Your task to perform on an android device: Clear the cart on walmart.com. Image 0: 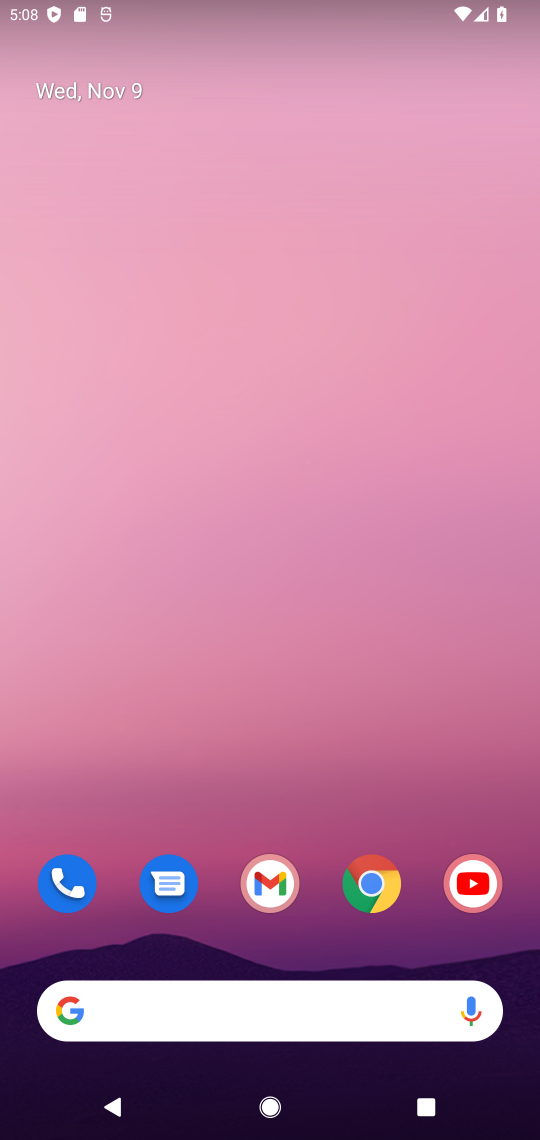
Step 0: click (370, 894)
Your task to perform on an android device: Clear the cart on walmart.com. Image 1: 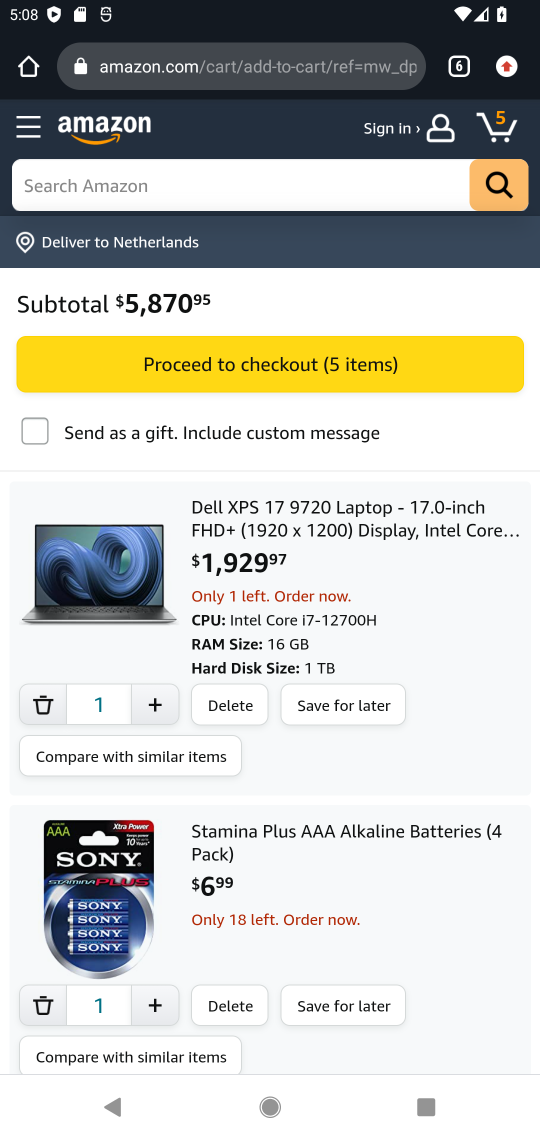
Step 1: click (463, 66)
Your task to perform on an android device: Clear the cart on walmart.com. Image 2: 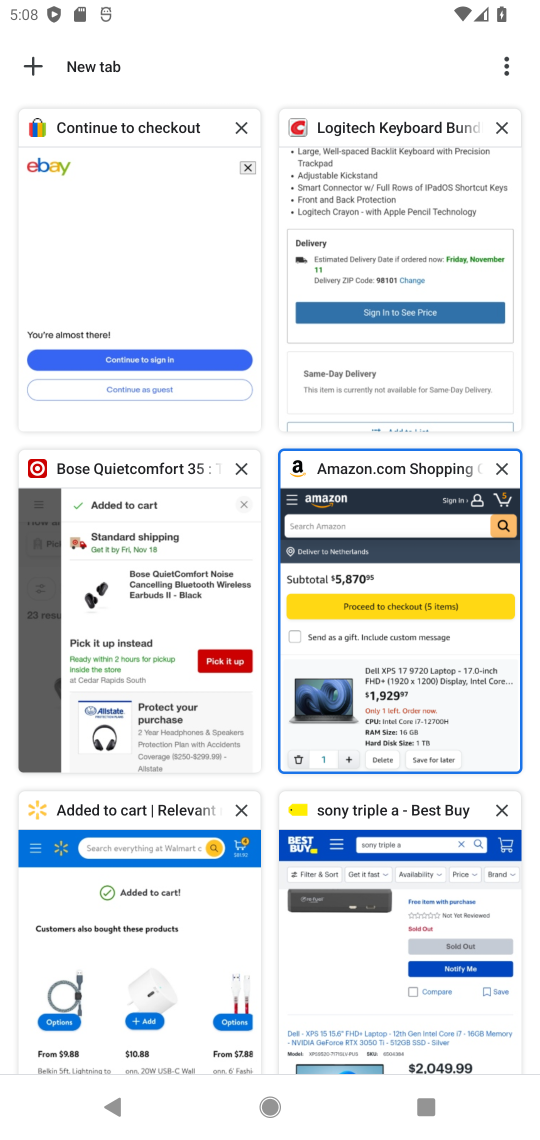
Step 2: click (146, 921)
Your task to perform on an android device: Clear the cart on walmart.com. Image 3: 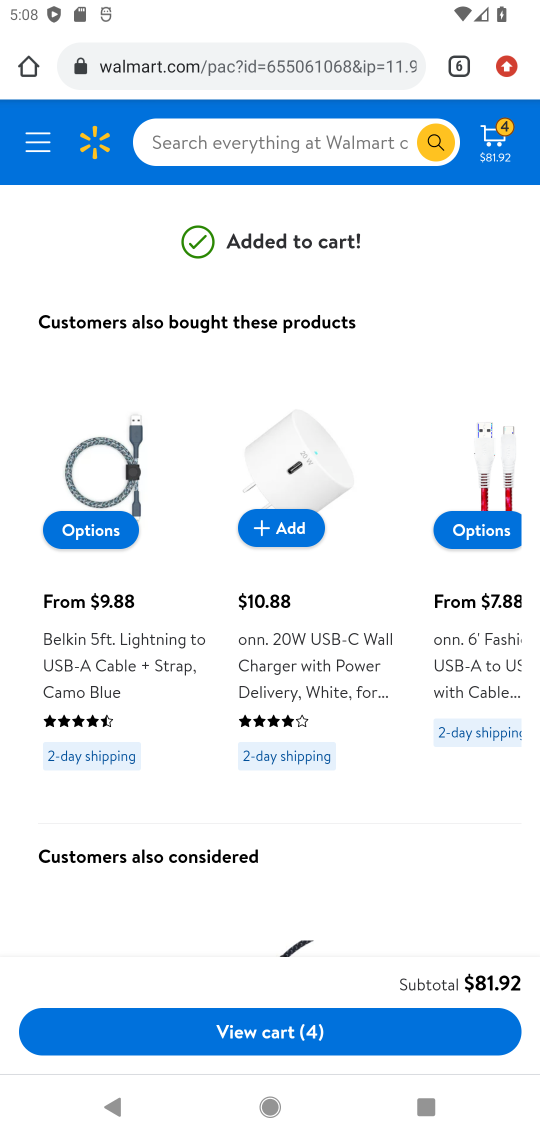
Step 3: click (498, 153)
Your task to perform on an android device: Clear the cart on walmart.com. Image 4: 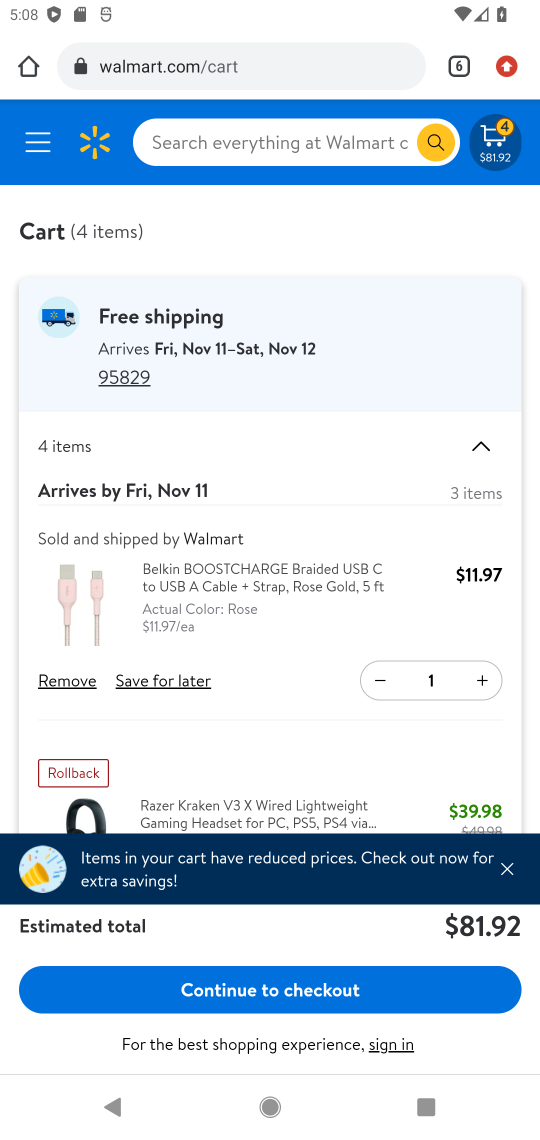
Step 4: click (70, 677)
Your task to perform on an android device: Clear the cart on walmart.com. Image 5: 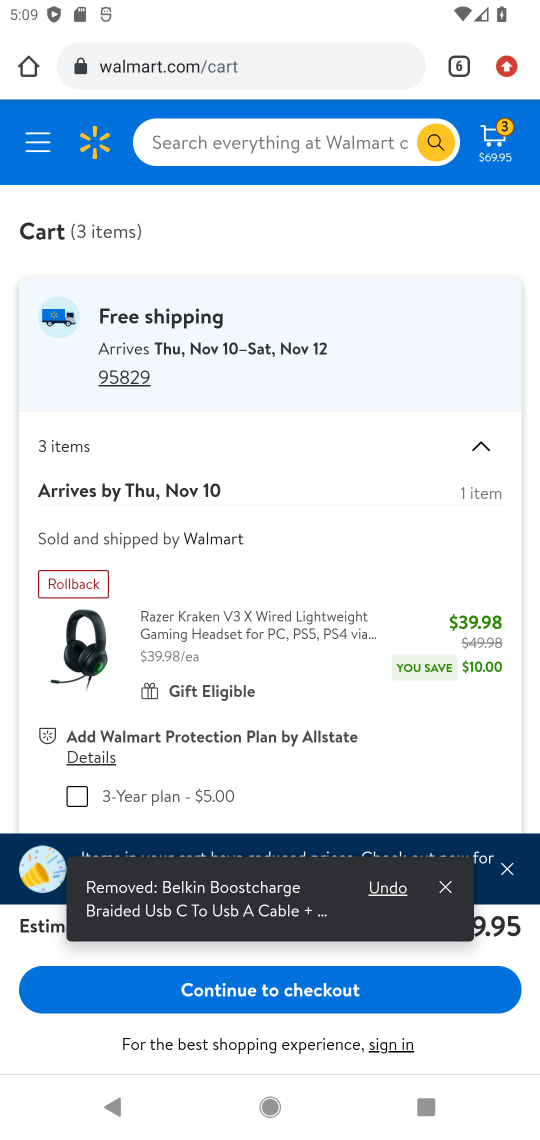
Step 5: click (504, 874)
Your task to perform on an android device: Clear the cart on walmart.com. Image 6: 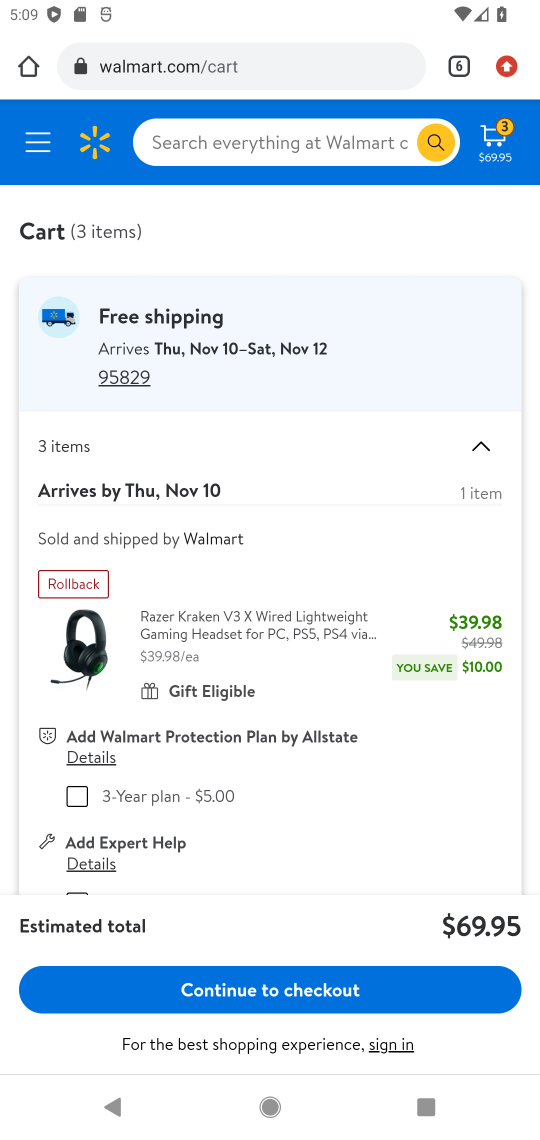
Step 6: drag from (169, 866) to (307, 347)
Your task to perform on an android device: Clear the cart on walmart.com. Image 7: 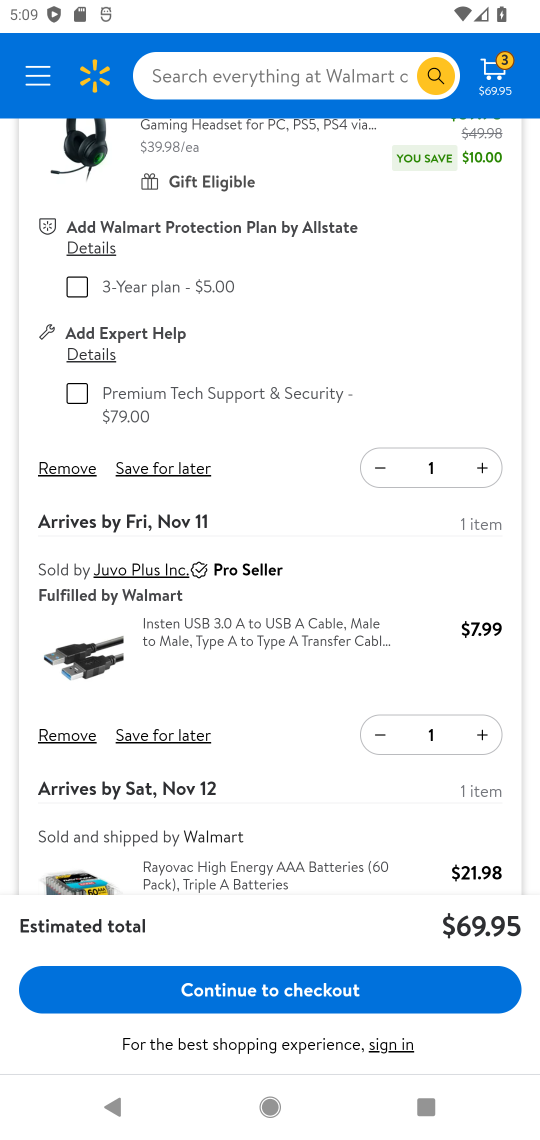
Step 7: click (71, 737)
Your task to perform on an android device: Clear the cart on walmart.com. Image 8: 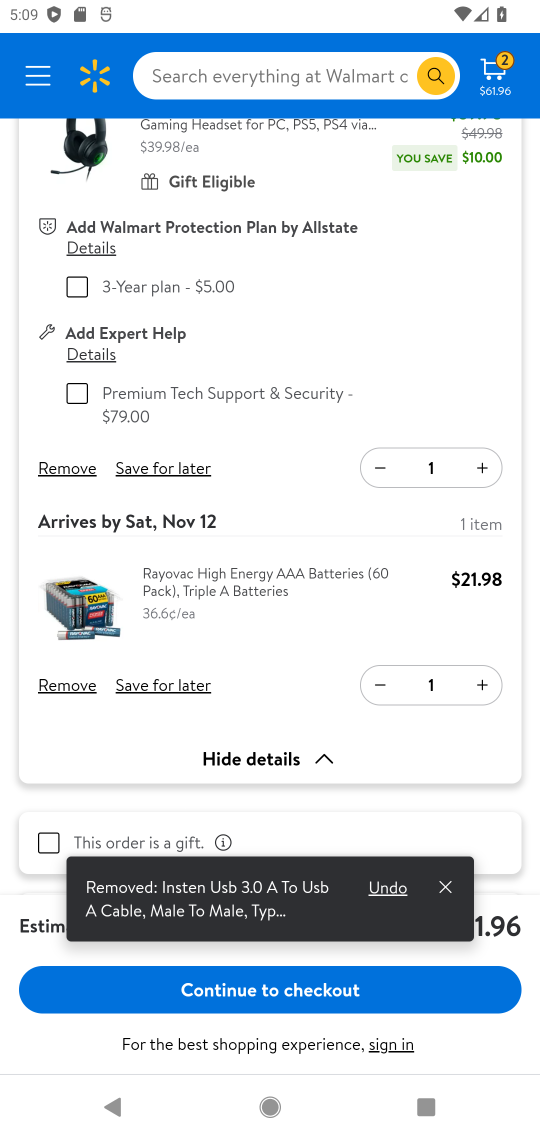
Step 8: click (78, 687)
Your task to perform on an android device: Clear the cart on walmart.com. Image 9: 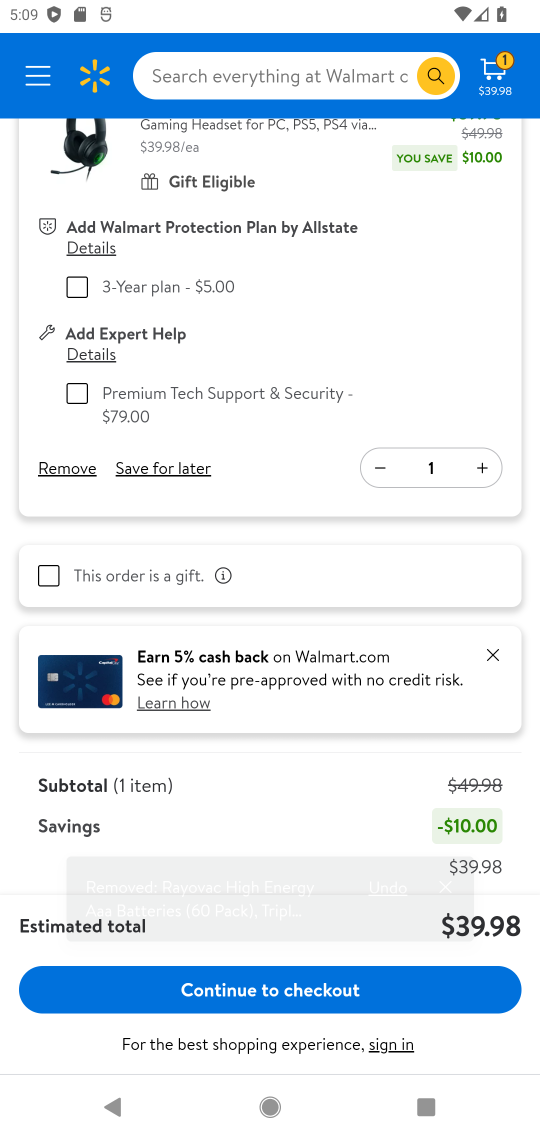
Step 9: task complete